Your task to perform on an android device: open a bookmark in the chrome app Image 0: 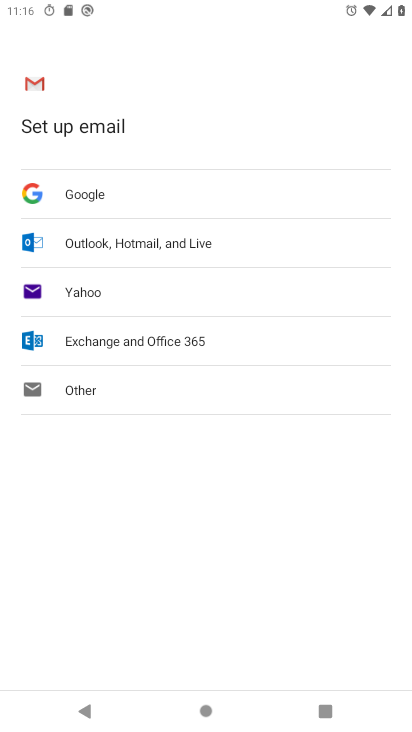
Step 0: press back button
Your task to perform on an android device: open a bookmark in the chrome app Image 1: 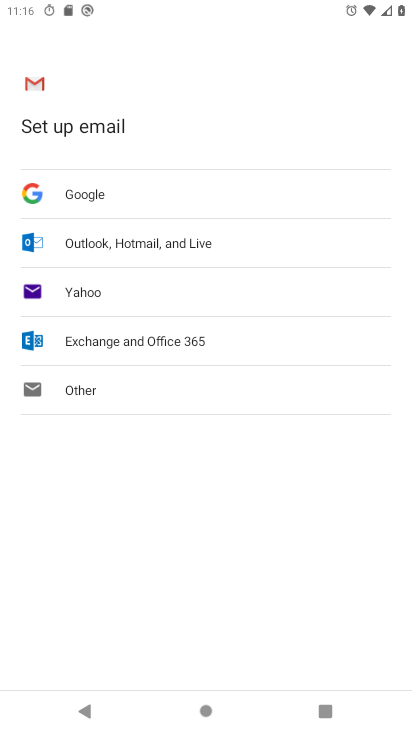
Step 1: press back button
Your task to perform on an android device: open a bookmark in the chrome app Image 2: 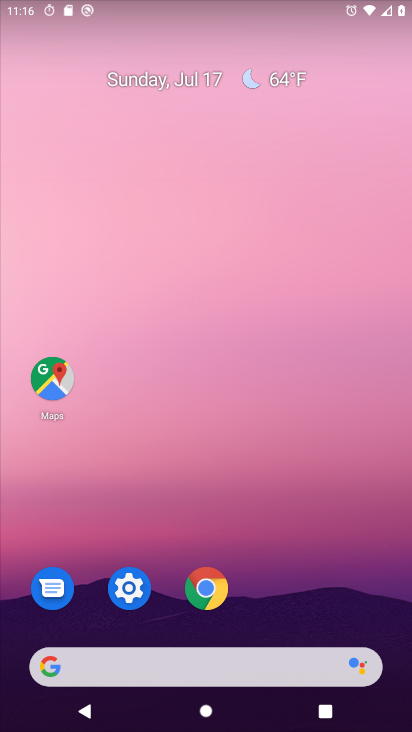
Step 2: drag from (259, 445) to (259, 248)
Your task to perform on an android device: open a bookmark in the chrome app Image 3: 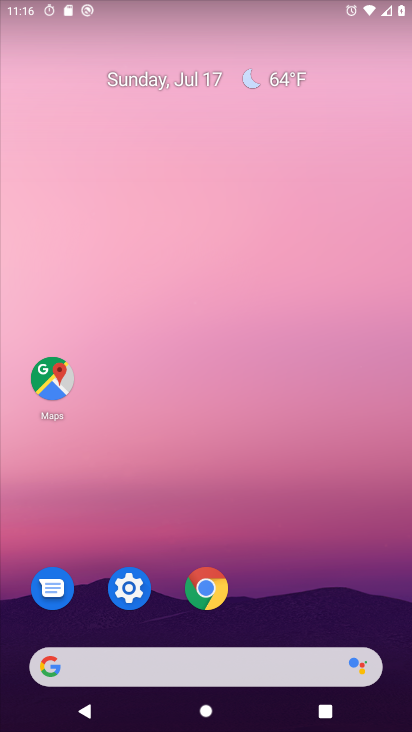
Step 3: drag from (297, 375) to (278, 51)
Your task to perform on an android device: open a bookmark in the chrome app Image 4: 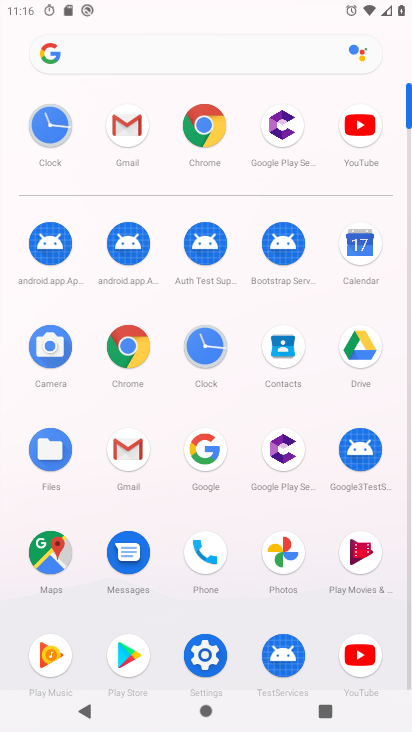
Step 4: click (219, 117)
Your task to perform on an android device: open a bookmark in the chrome app Image 5: 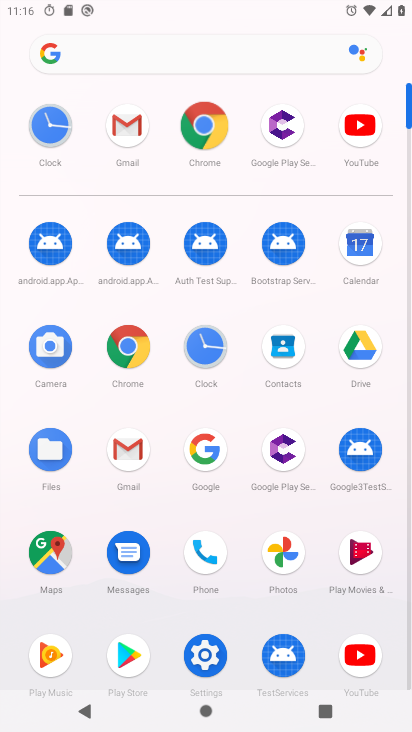
Step 5: click (216, 117)
Your task to perform on an android device: open a bookmark in the chrome app Image 6: 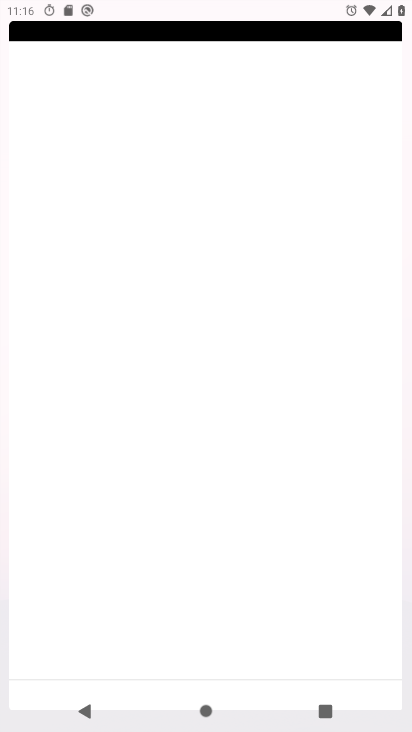
Step 6: click (216, 117)
Your task to perform on an android device: open a bookmark in the chrome app Image 7: 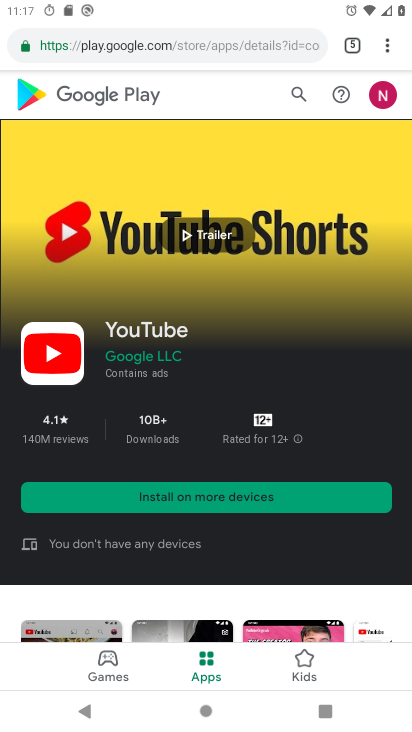
Step 7: drag from (384, 48) to (251, 40)
Your task to perform on an android device: open a bookmark in the chrome app Image 8: 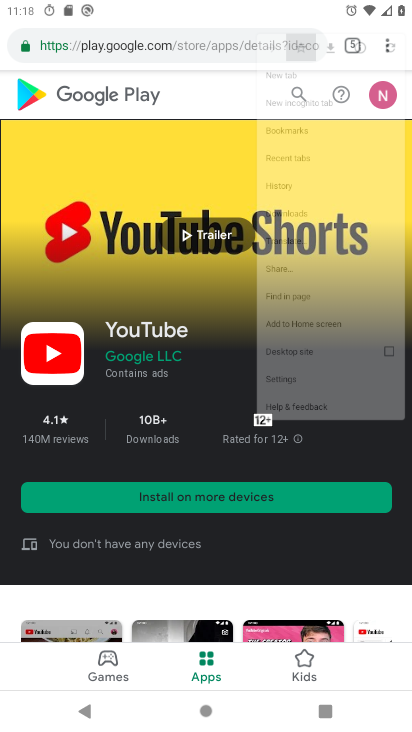
Step 8: click (251, 40)
Your task to perform on an android device: open a bookmark in the chrome app Image 9: 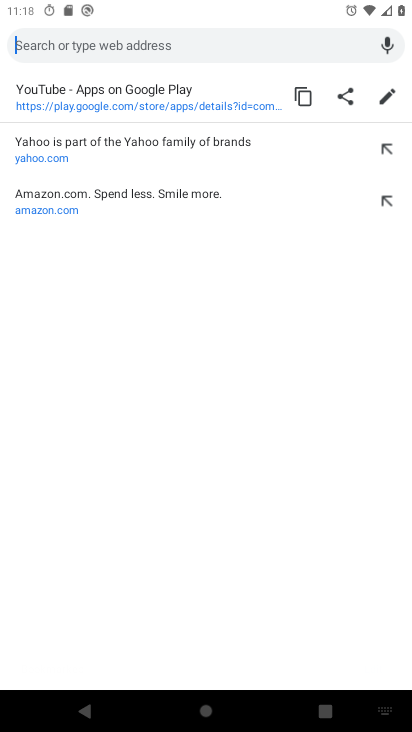
Step 9: task complete